Your task to perform on an android device: delete browsing data in the chrome app Image 0: 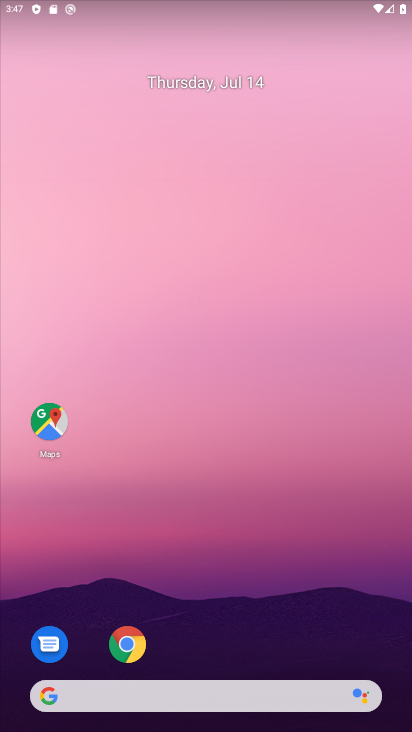
Step 0: press home button
Your task to perform on an android device: delete browsing data in the chrome app Image 1: 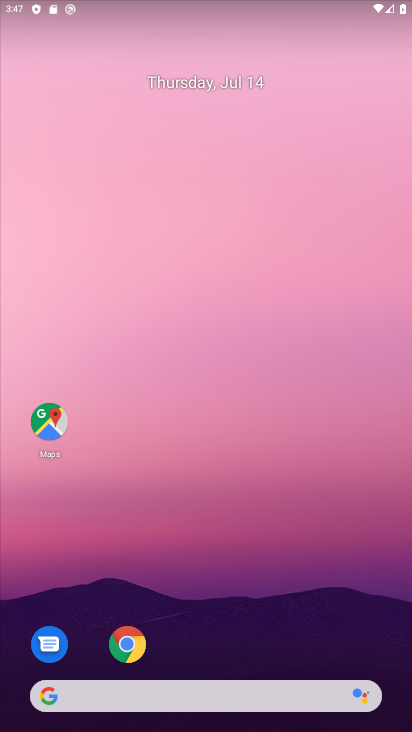
Step 1: click (130, 648)
Your task to perform on an android device: delete browsing data in the chrome app Image 2: 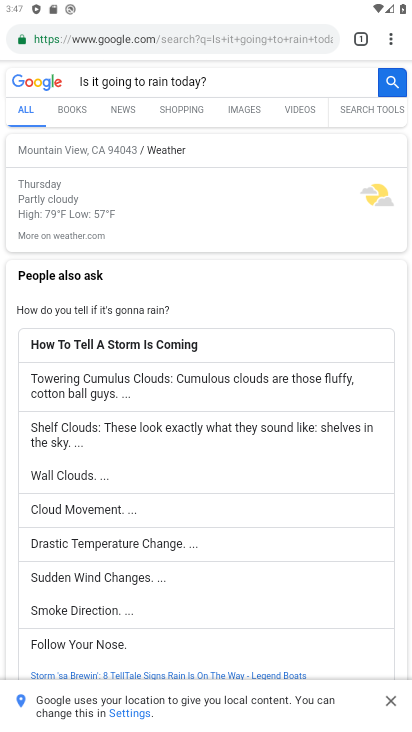
Step 2: click (390, 34)
Your task to perform on an android device: delete browsing data in the chrome app Image 3: 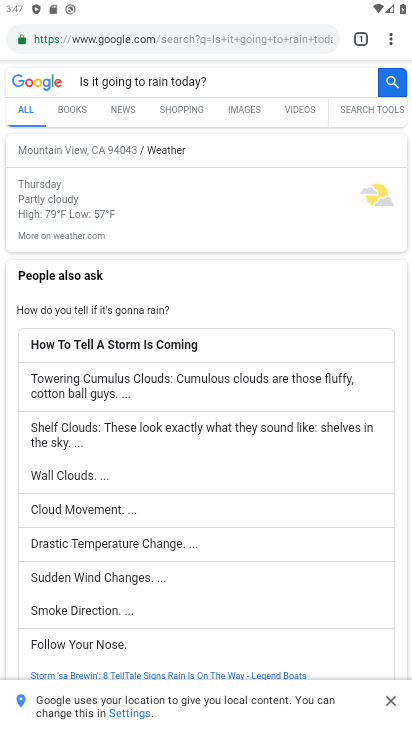
Step 3: drag from (390, 34) to (263, 440)
Your task to perform on an android device: delete browsing data in the chrome app Image 4: 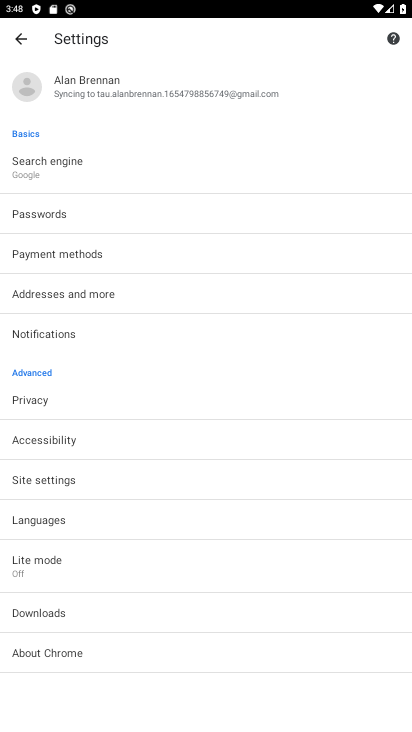
Step 4: click (85, 484)
Your task to perform on an android device: delete browsing data in the chrome app Image 5: 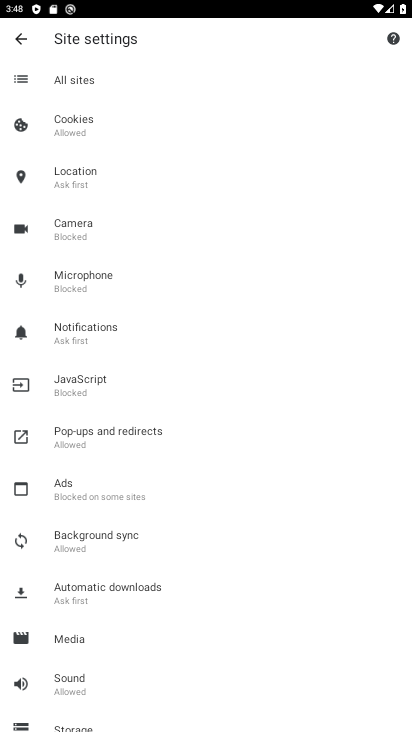
Step 5: click (14, 36)
Your task to perform on an android device: delete browsing data in the chrome app Image 6: 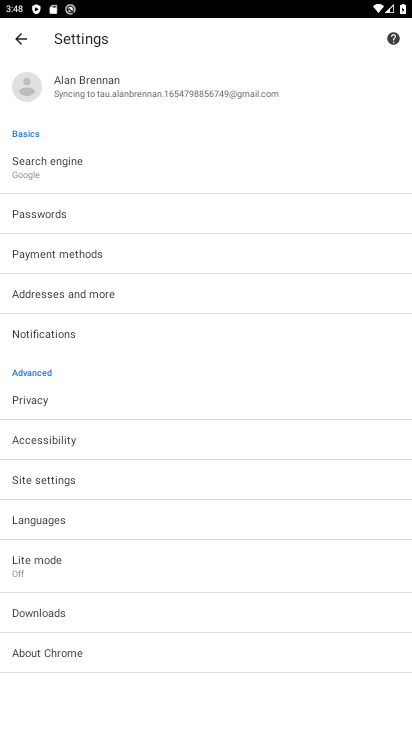
Step 6: click (29, 398)
Your task to perform on an android device: delete browsing data in the chrome app Image 7: 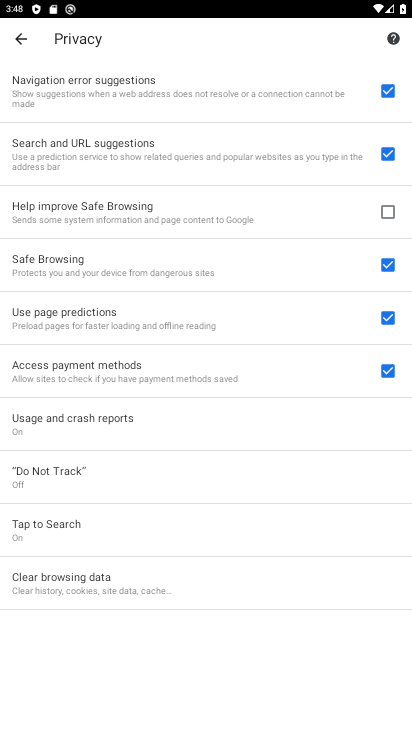
Step 7: click (49, 588)
Your task to perform on an android device: delete browsing data in the chrome app Image 8: 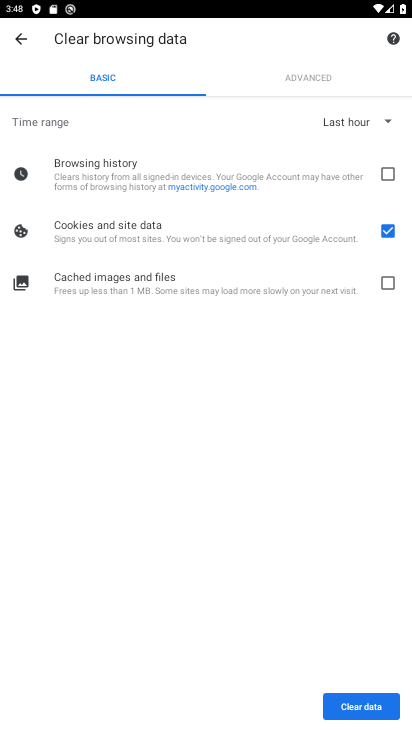
Step 8: click (344, 705)
Your task to perform on an android device: delete browsing data in the chrome app Image 9: 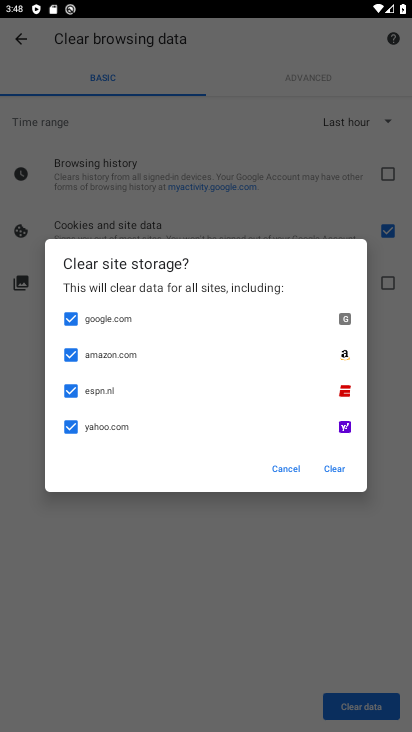
Step 9: click (334, 463)
Your task to perform on an android device: delete browsing data in the chrome app Image 10: 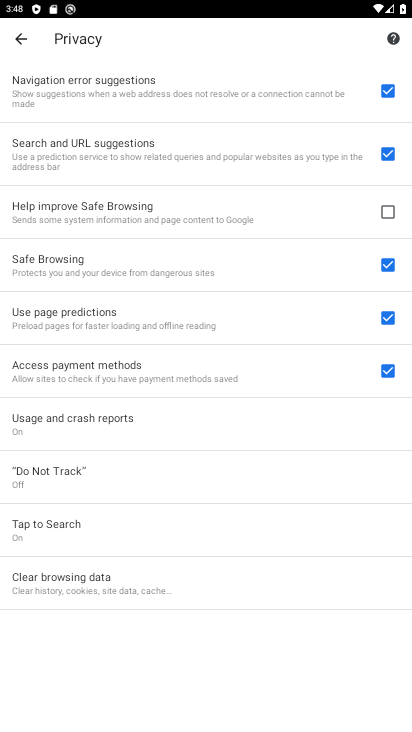
Step 10: task complete